Your task to perform on an android device: Open privacy settings Image 0: 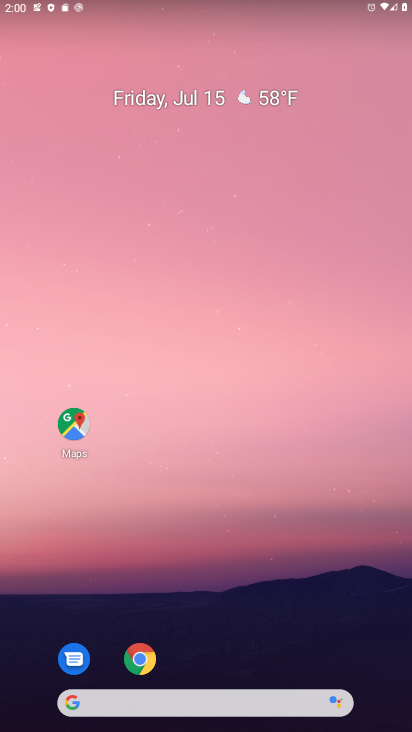
Step 0: drag from (204, 622) to (236, 189)
Your task to perform on an android device: Open privacy settings Image 1: 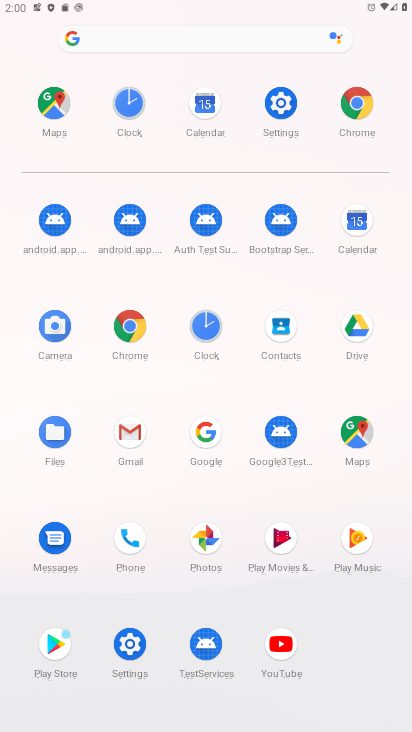
Step 1: click (276, 100)
Your task to perform on an android device: Open privacy settings Image 2: 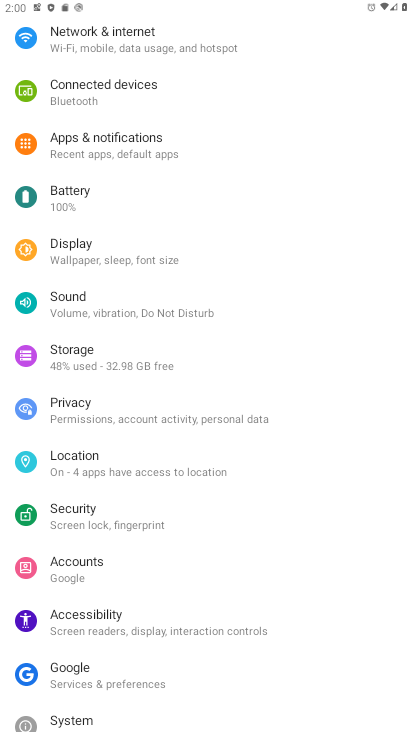
Step 2: click (59, 409)
Your task to perform on an android device: Open privacy settings Image 3: 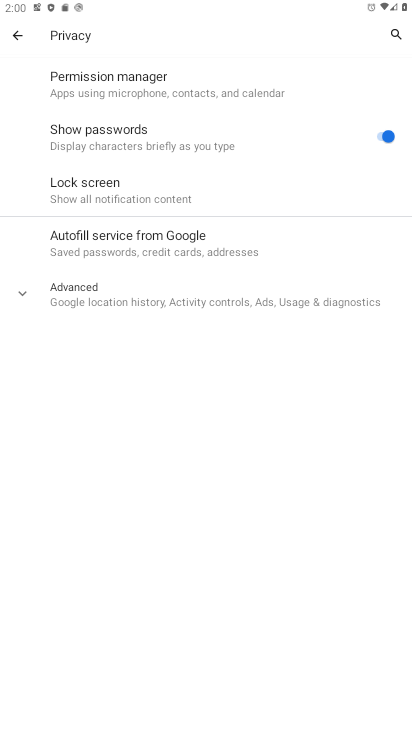
Step 3: task complete